Your task to perform on an android device: Search for vegetarian restaurants on Maps Image 0: 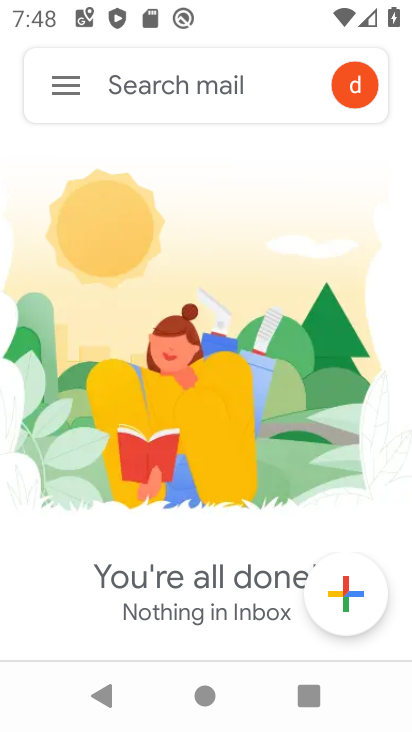
Step 0: drag from (371, 506) to (320, 111)
Your task to perform on an android device: Search for vegetarian restaurants on Maps Image 1: 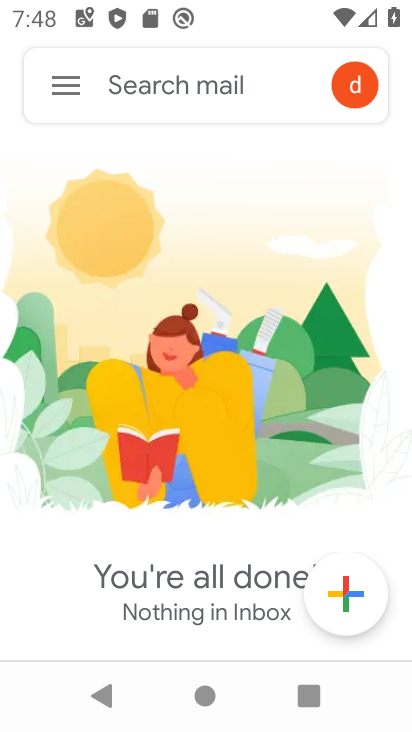
Step 1: click (408, 280)
Your task to perform on an android device: Search for vegetarian restaurants on Maps Image 2: 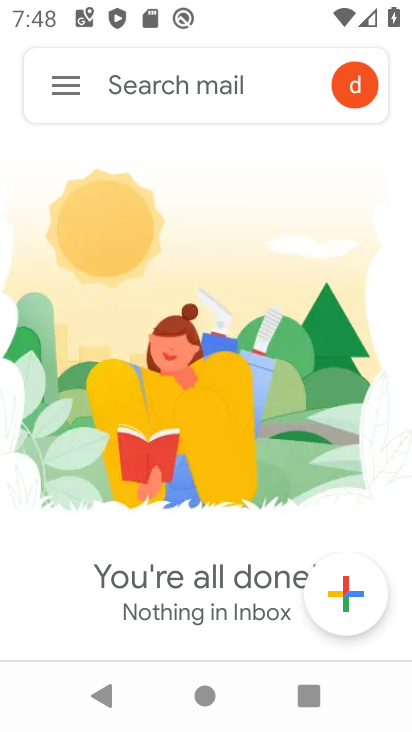
Step 2: drag from (383, 568) to (357, 237)
Your task to perform on an android device: Search for vegetarian restaurants on Maps Image 3: 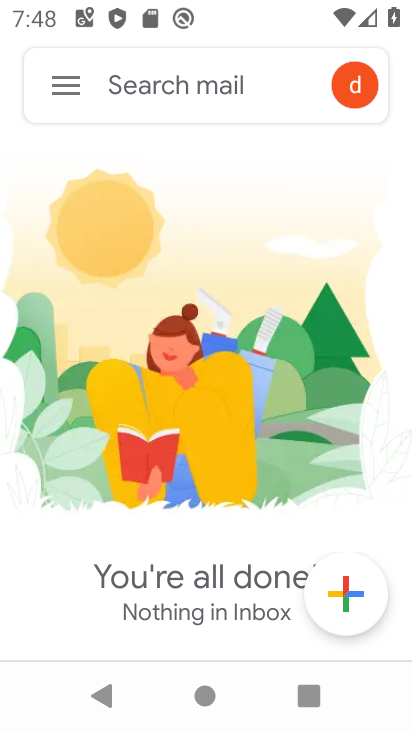
Step 3: press home button
Your task to perform on an android device: Search for vegetarian restaurants on Maps Image 4: 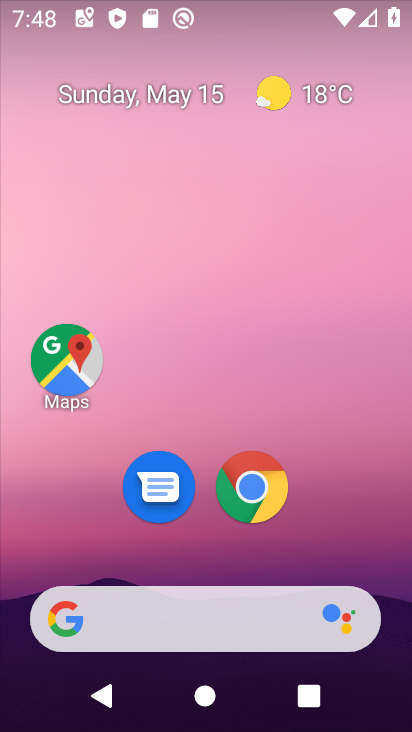
Step 4: click (68, 345)
Your task to perform on an android device: Search for vegetarian restaurants on Maps Image 5: 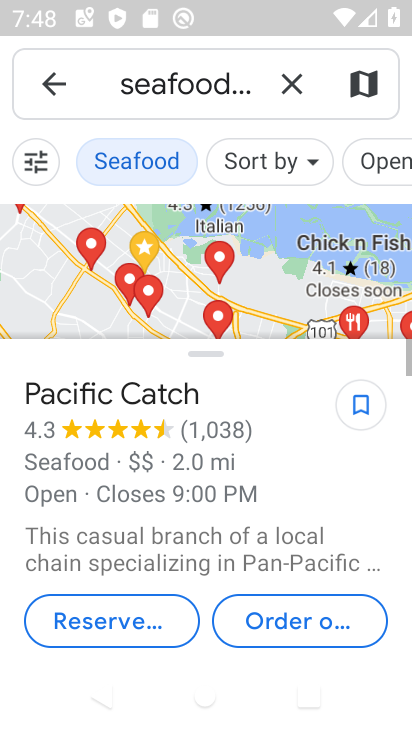
Step 5: click (292, 83)
Your task to perform on an android device: Search for vegetarian restaurants on Maps Image 6: 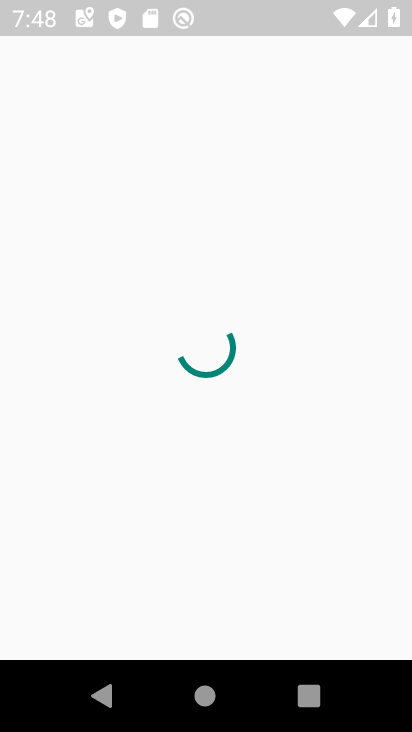
Step 6: click (111, 87)
Your task to perform on an android device: Search for vegetarian restaurants on Maps Image 7: 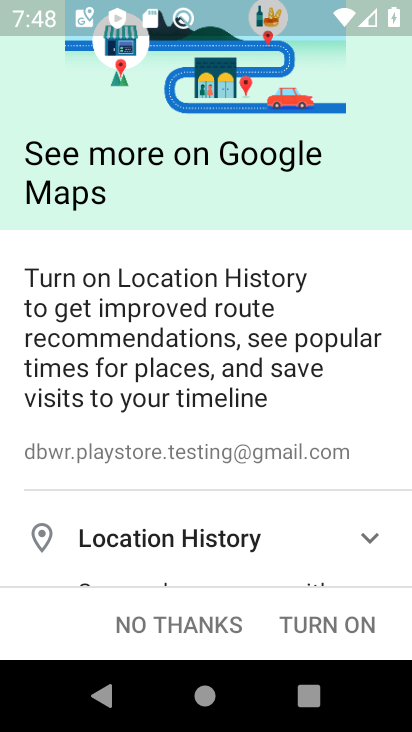
Step 7: click (327, 628)
Your task to perform on an android device: Search for vegetarian restaurants on Maps Image 8: 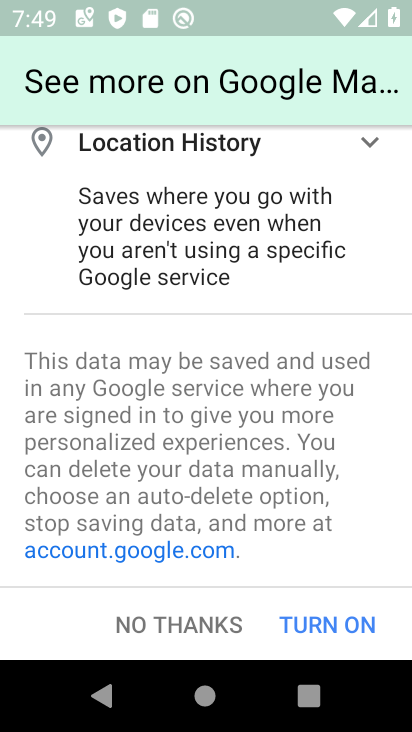
Step 8: click (347, 624)
Your task to perform on an android device: Search for vegetarian restaurants on Maps Image 9: 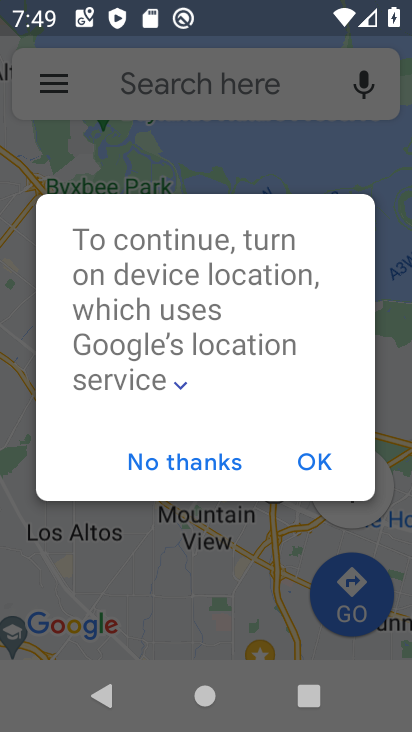
Step 9: click (324, 454)
Your task to perform on an android device: Search for vegetarian restaurants on Maps Image 10: 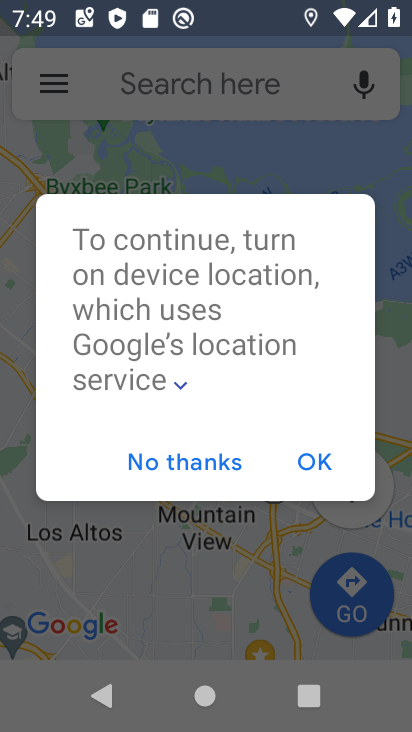
Step 10: click (324, 454)
Your task to perform on an android device: Search for vegetarian restaurants on Maps Image 11: 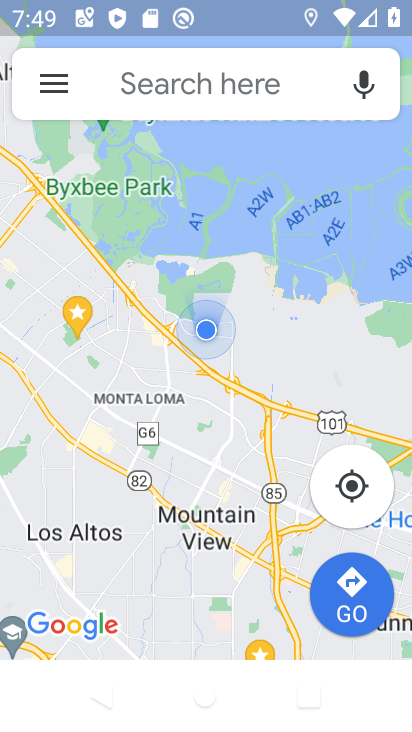
Step 11: click (137, 86)
Your task to perform on an android device: Search for vegetarian restaurants on Maps Image 12: 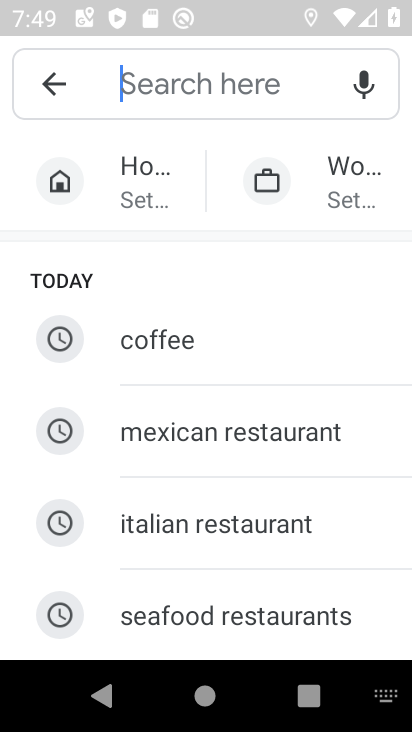
Step 12: click (191, 89)
Your task to perform on an android device: Search for vegetarian restaurants on Maps Image 13: 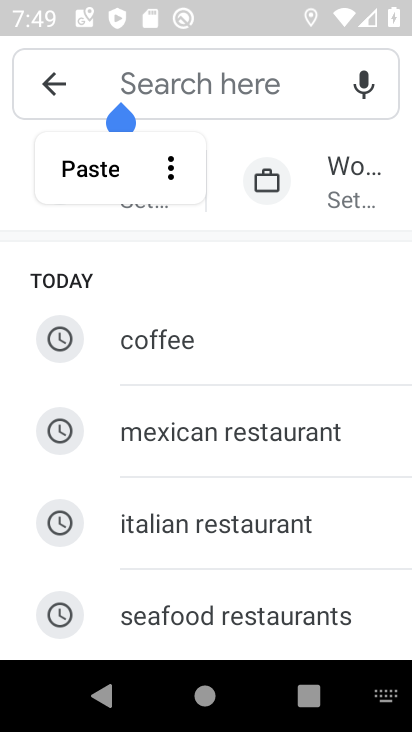
Step 13: type "vegetarian restaurants"
Your task to perform on an android device: Search for vegetarian restaurants on Maps Image 14: 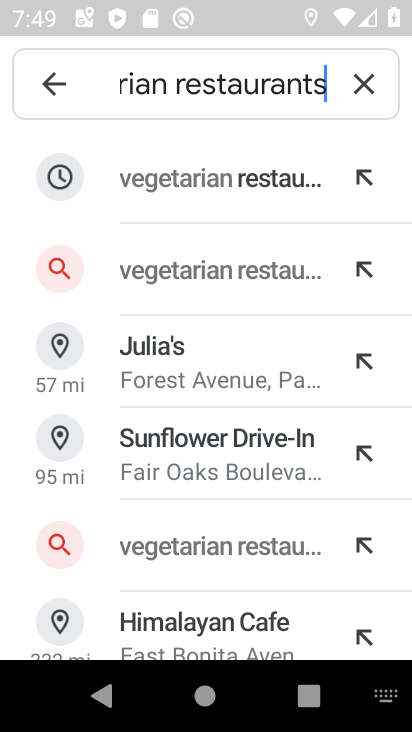
Step 14: click (184, 281)
Your task to perform on an android device: Search for vegetarian restaurants on Maps Image 15: 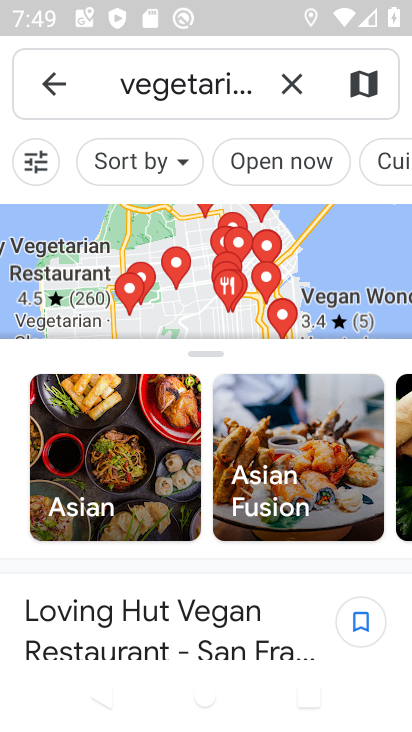
Step 15: task complete